Your task to perform on an android device: Open calendar and show me the fourth week of next month Image 0: 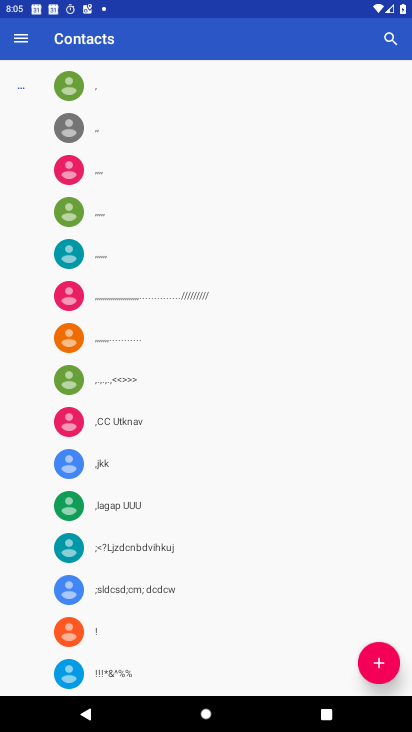
Step 0: press home button
Your task to perform on an android device: Open calendar and show me the fourth week of next month Image 1: 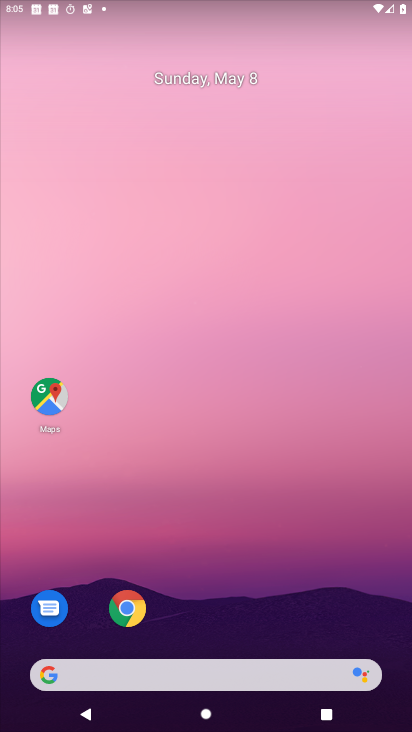
Step 1: drag from (288, 554) to (330, 67)
Your task to perform on an android device: Open calendar and show me the fourth week of next month Image 2: 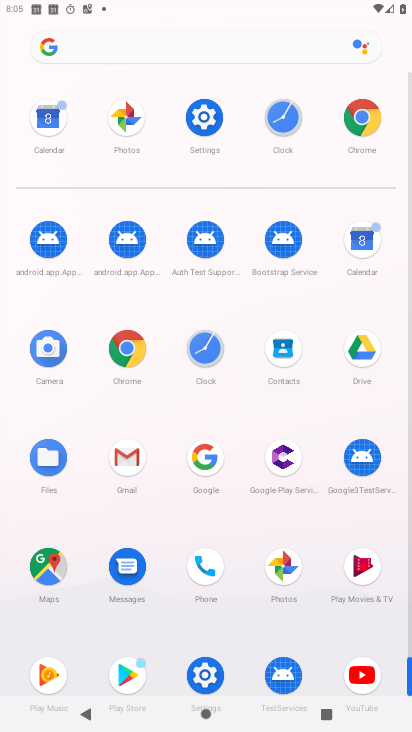
Step 2: click (369, 242)
Your task to perform on an android device: Open calendar and show me the fourth week of next month Image 3: 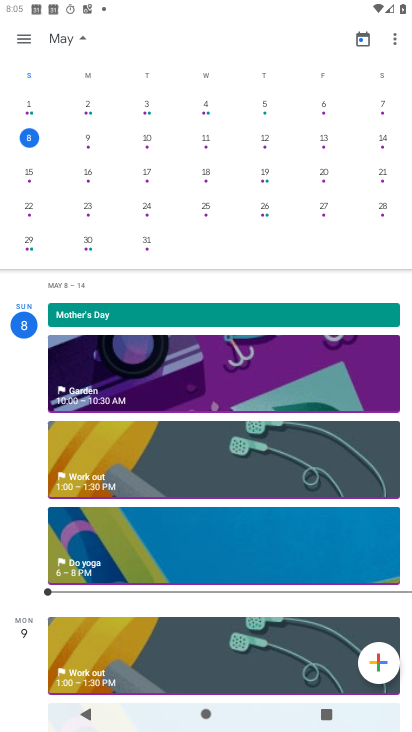
Step 3: drag from (321, 185) to (33, 184)
Your task to perform on an android device: Open calendar and show me the fourth week of next month Image 4: 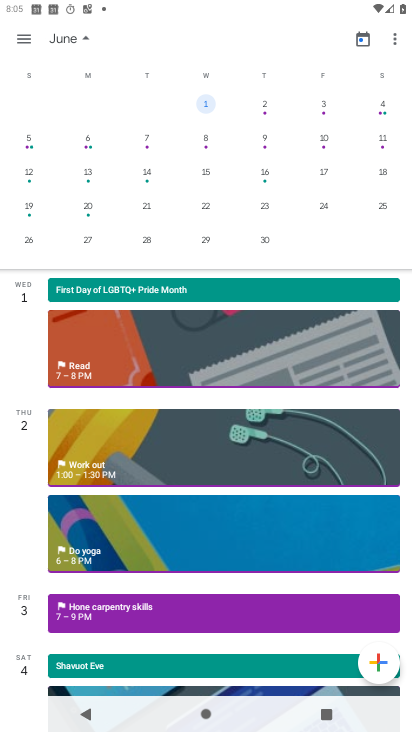
Step 4: click (34, 208)
Your task to perform on an android device: Open calendar and show me the fourth week of next month Image 5: 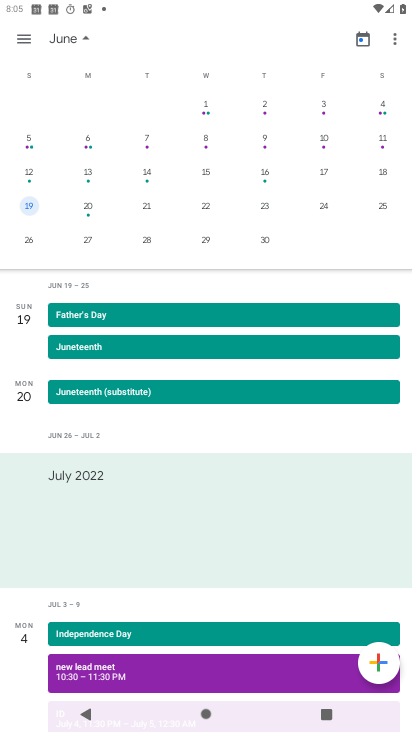
Step 5: click (92, 212)
Your task to perform on an android device: Open calendar and show me the fourth week of next month Image 6: 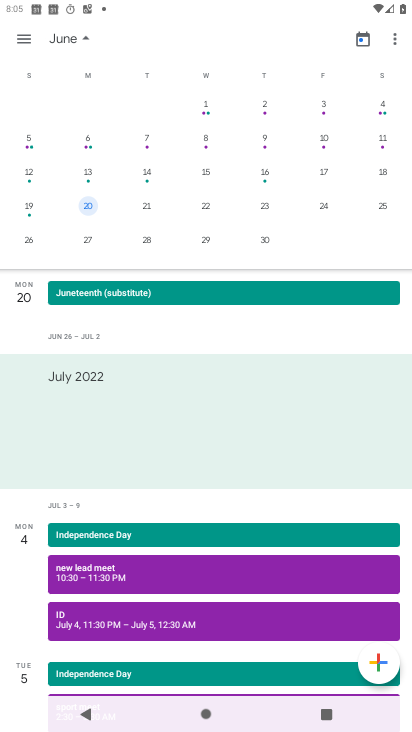
Step 6: click (150, 211)
Your task to perform on an android device: Open calendar and show me the fourth week of next month Image 7: 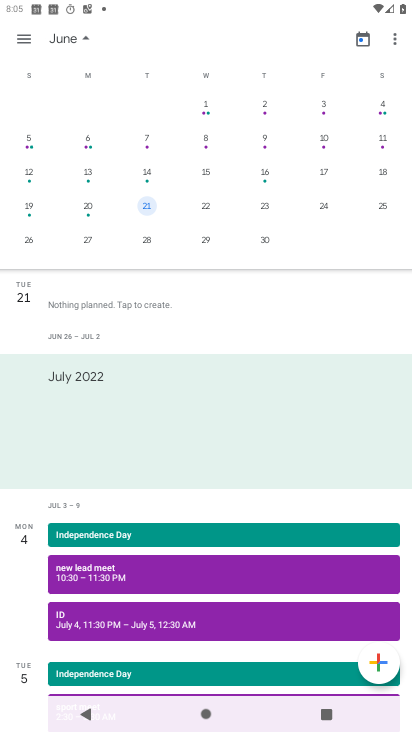
Step 7: click (207, 214)
Your task to perform on an android device: Open calendar and show me the fourth week of next month Image 8: 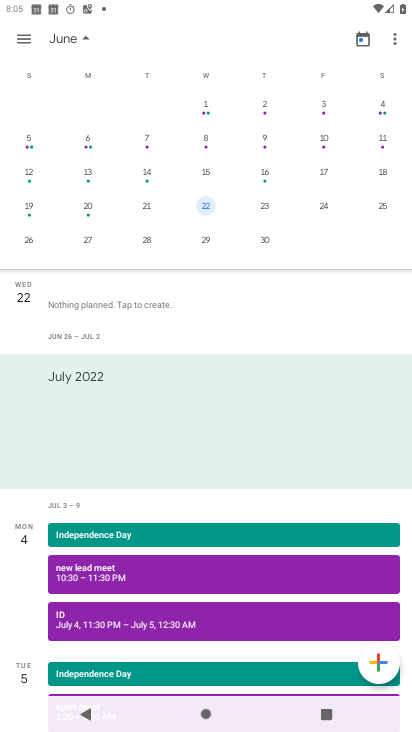
Step 8: click (257, 214)
Your task to perform on an android device: Open calendar and show me the fourth week of next month Image 9: 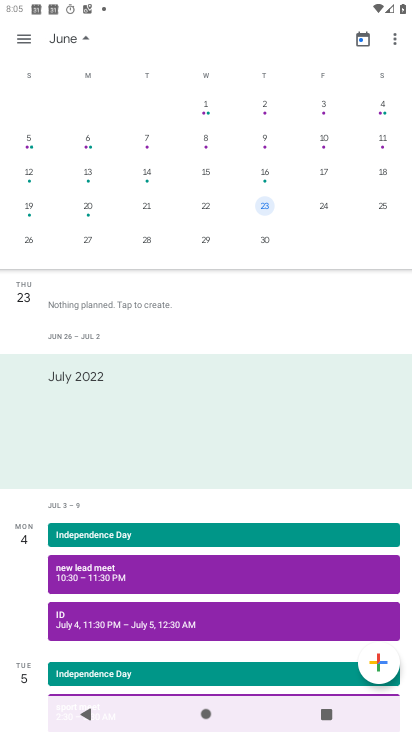
Step 9: click (342, 213)
Your task to perform on an android device: Open calendar and show me the fourth week of next month Image 10: 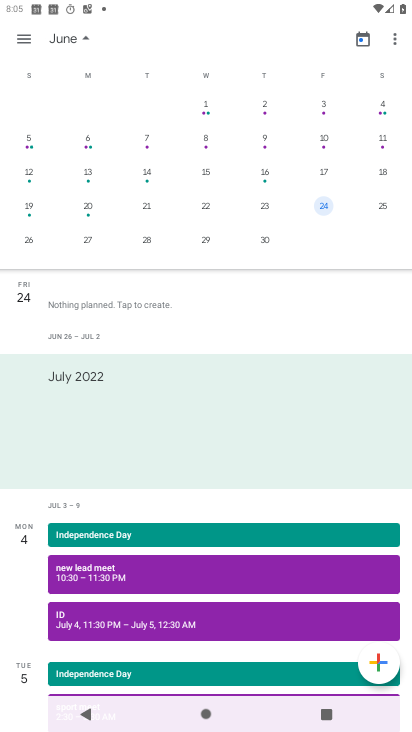
Step 10: click (385, 210)
Your task to perform on an android device: Open calendar and show me the fourth week of next month Image 11: 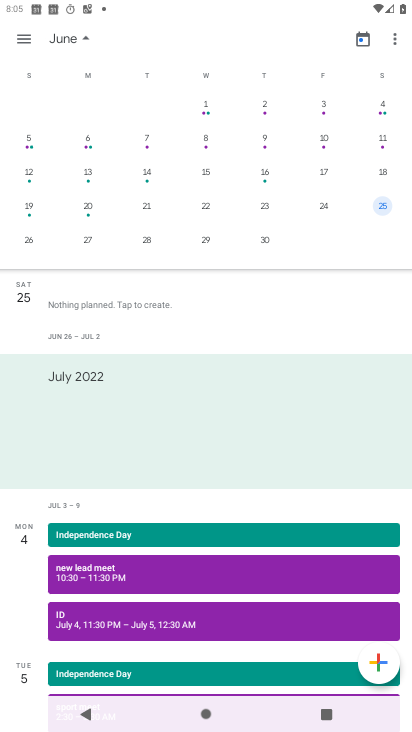
Step 11: task complete